Your task to perform on an android device: Go to CNN.com Image 0: 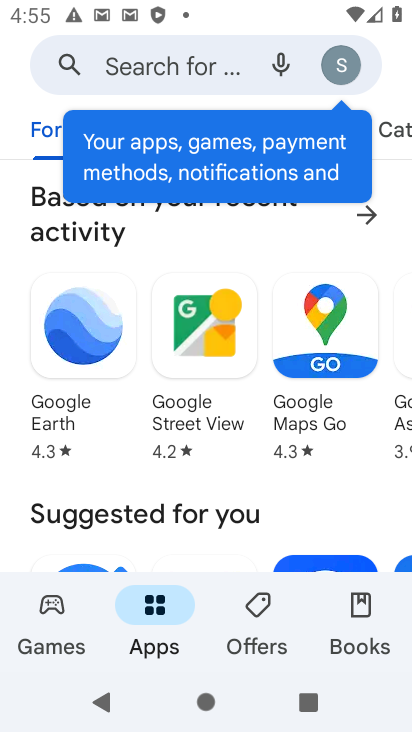
Step 0: press home button
Your task to perform on an android device: Go to CNN.com Image 1: 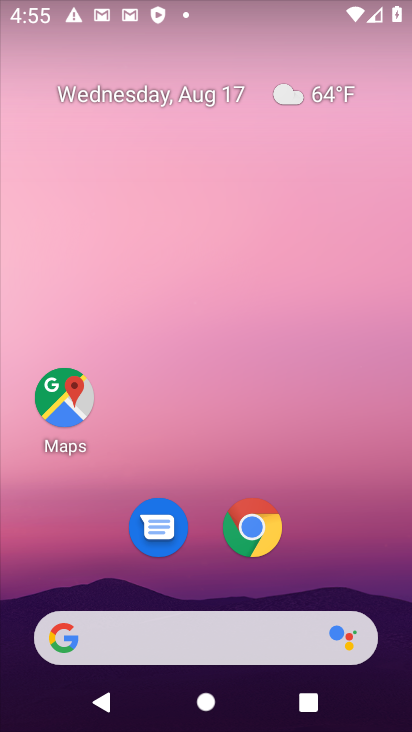
Step 1: drag from (198, 622) to (182, 190)
Your task to perform on an android device: Go to CNN.com Image 2: 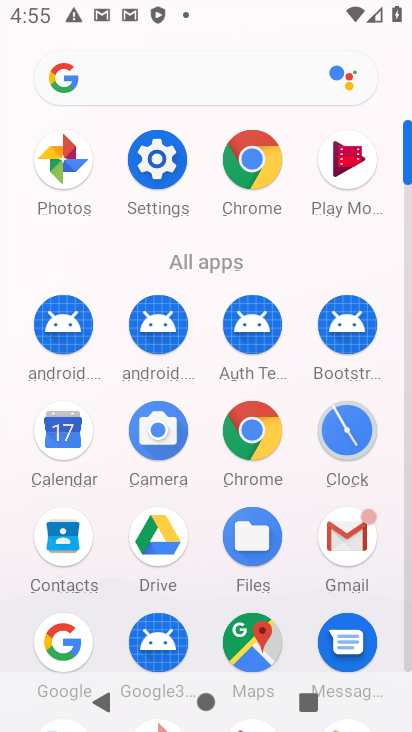
Step 2: click (56, 655)
Your task to perform on an android device: Go to CNN.com Image 3: 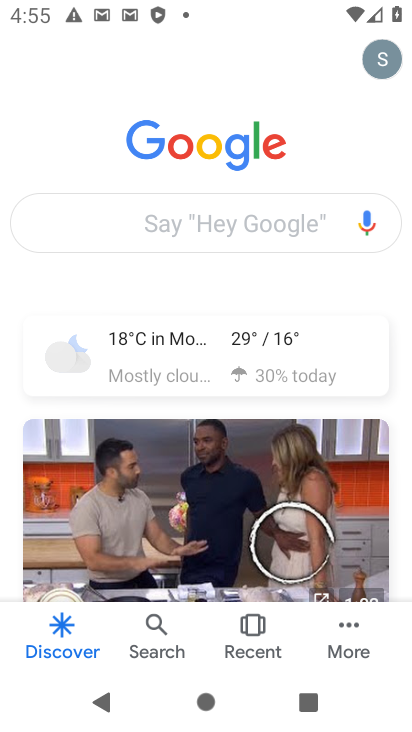
Step 3: click (166, 220)
Your task to perform on an android device: Go to CNN.com Image 4: 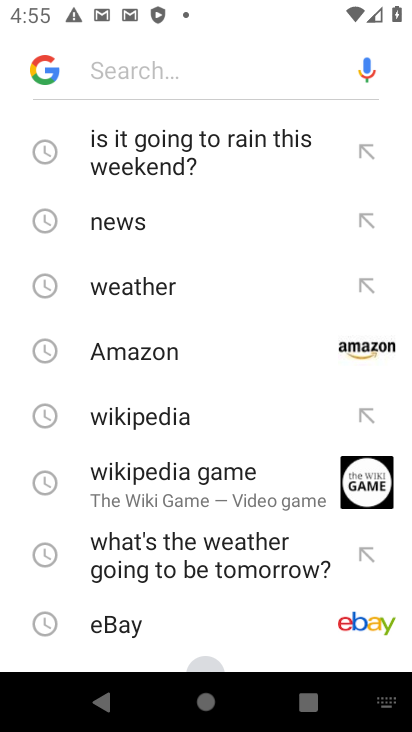
Step 4: drag from (160, 501) to (160, 140)
Your task to perform on an android device: Go to CNN.com Image 5: 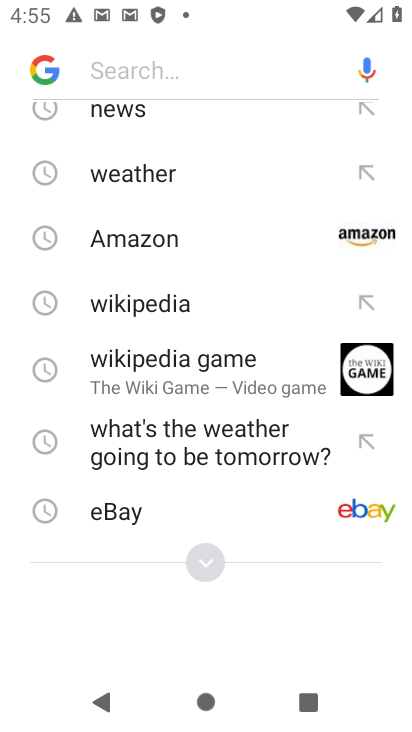
Step 5: click (206, 564)
Your task to perform on an android device: Go to CNN.com Image 6: 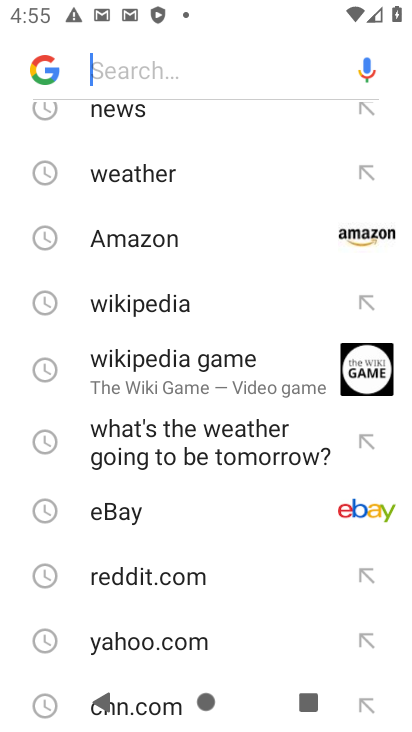
Step 6: click (145, 710)
Your task to perform on an android device: Go to CNN.com Image 7: 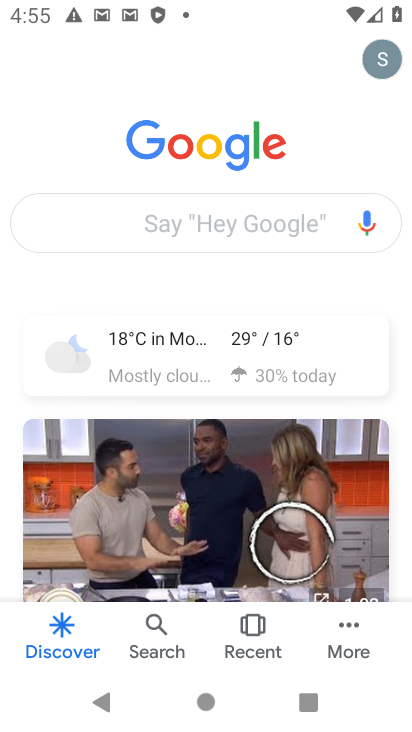
Step 7: click (163, 214)
Your task to perform on an android device: Go to CNN.com Image 8: 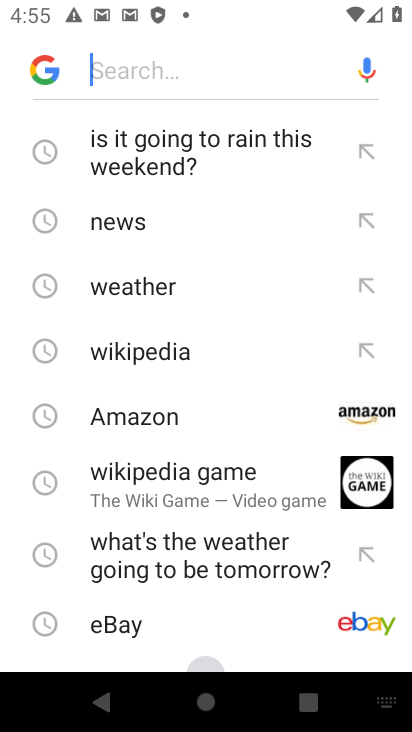
Step 8: drag from (126, 615) to (126, 276)
Your task to perform on an android device: Go to CNN.com Image 9: 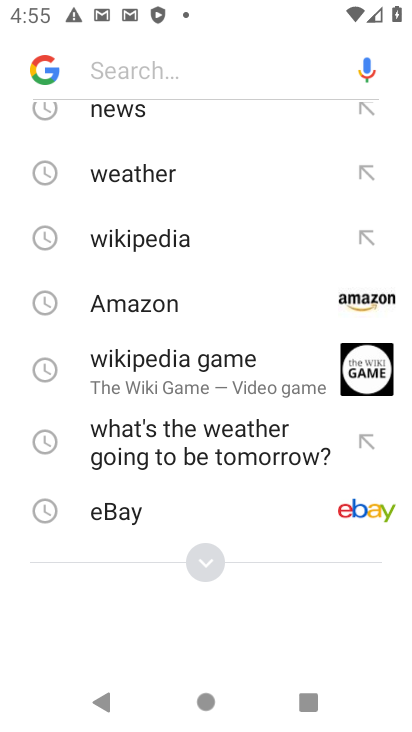
Step 9: click (215, 560)
Your task to perform on an android device: Go to CNN.com Image 10: 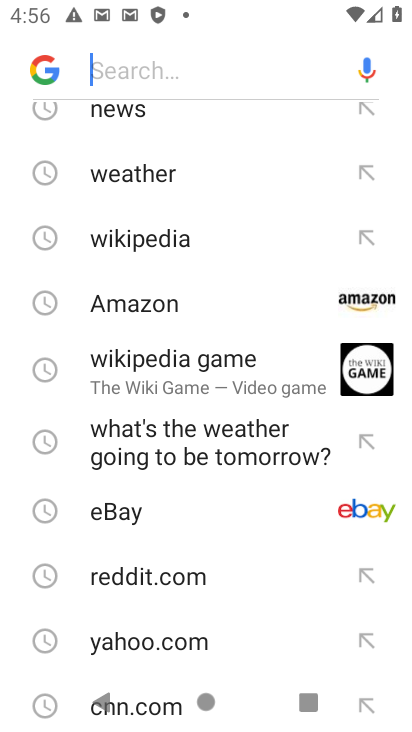
Step 10: click (114, 703)
Your task to perform on an android device: Go to CNN.com Image 11: 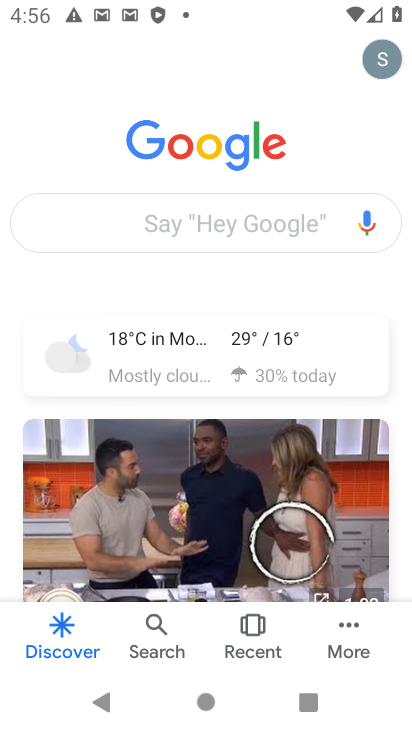
Step 11: click (176, 228)
Your task to perform on an android device: Go to CNN.com Image 12: 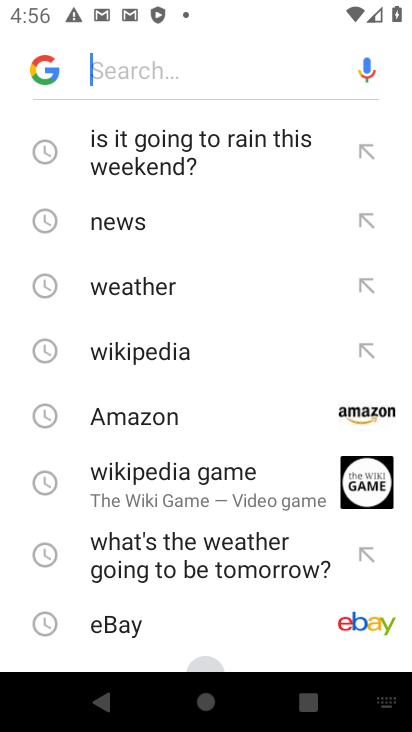
Step 12: drag from (123, 595) to (123, 76)
Your task to perform on an android device: Go to CNN.com Image 13: 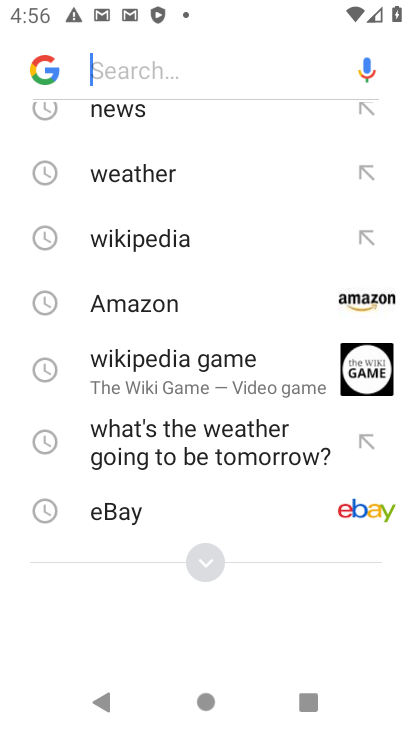
Step 13: click (206, 572)
Your task to perform on an android device: Go to CNN.com Image 14: 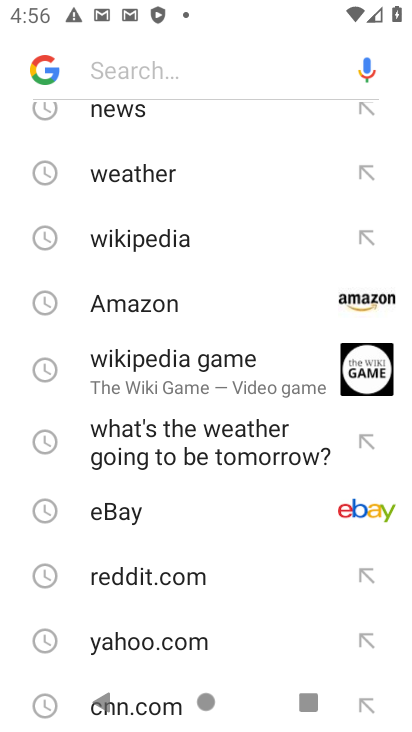
Step 14: drag from (98, 616) to (122, 270)
Your task to perform on an android device: Go to CNN.com Image 15: 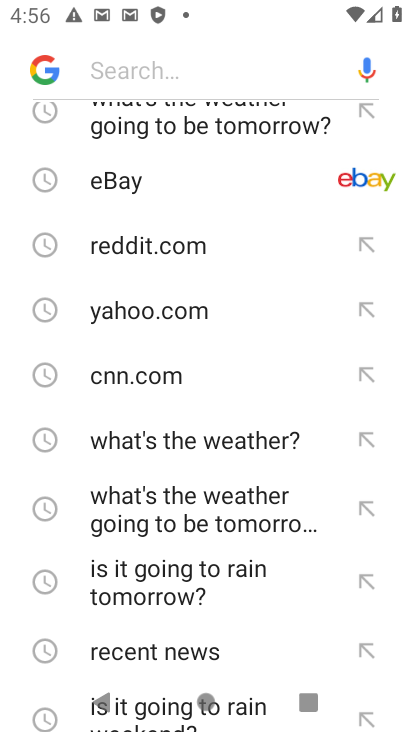
Step 15: click (129, 381)
Your task to perform on an android device: Go to CNN.com Image 16: 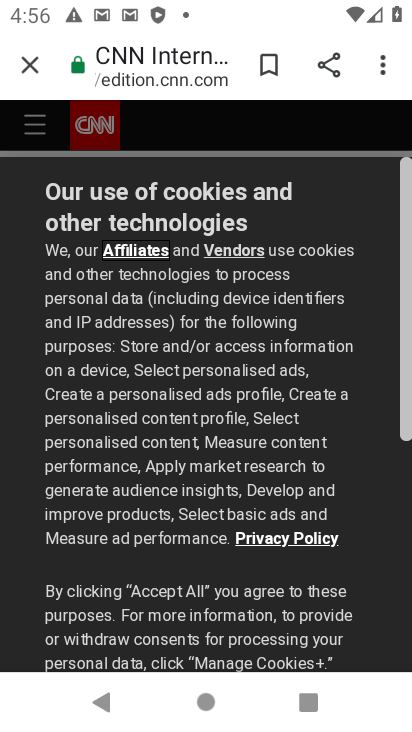
Step 16: task complete